Your task to perform on an android device: Go to sound settings Image 0: 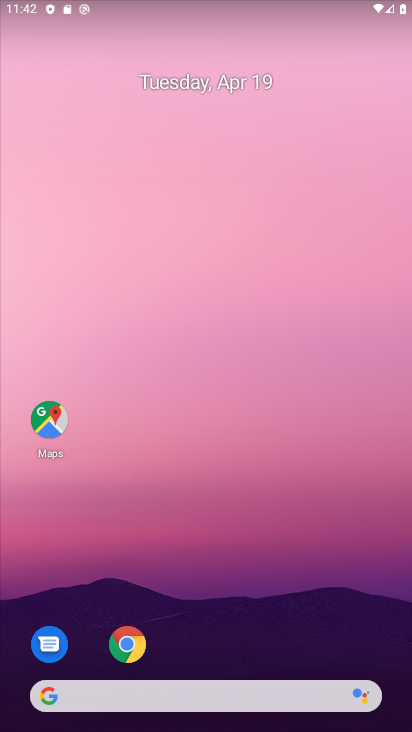
Step 0: drag from (278, 572) to (340, 49)
Your task to perform on an android device: Go to sound settings Image 1: 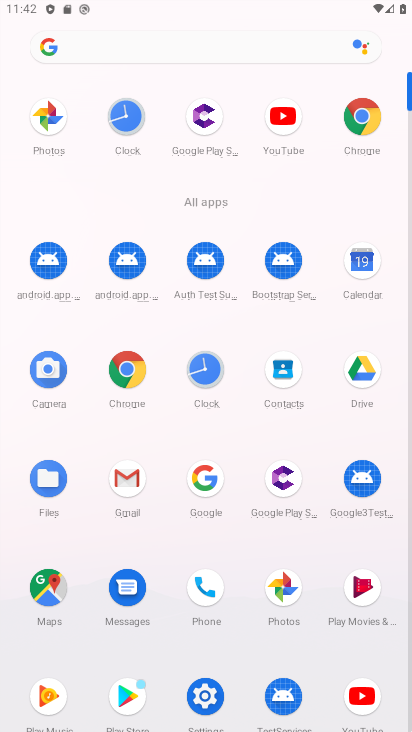
Step 1: click (201, 696)
Your task to perform on an android device: Go to sound settings Image 2: 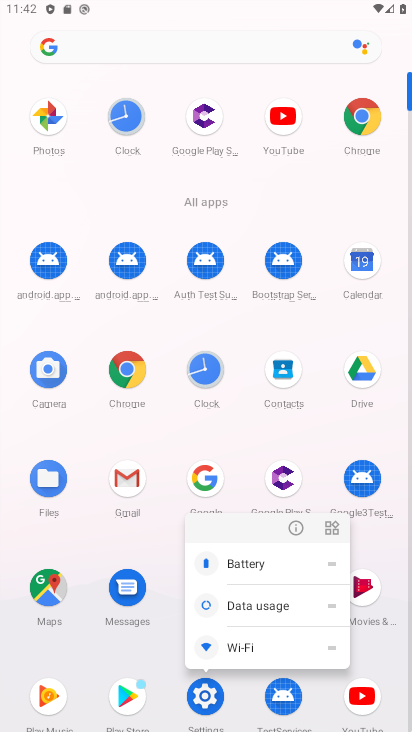
Step 2: click (201, 696)
Your task to perform on an android device: Go to sound settings Image 3: 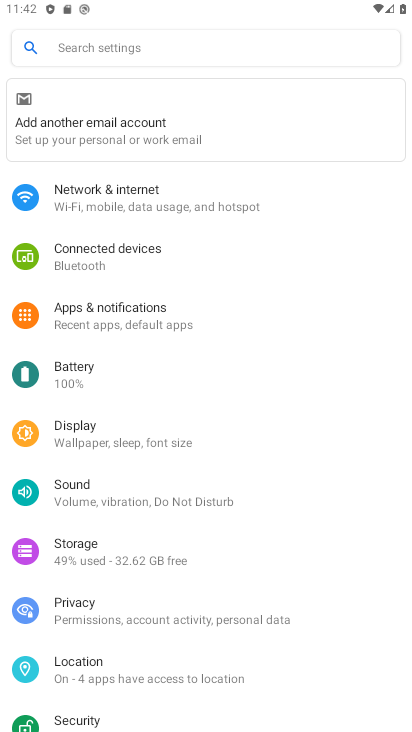
Step 3: click (168, 492)
Your task to perform on an android device: Go to sound settings Image 4: 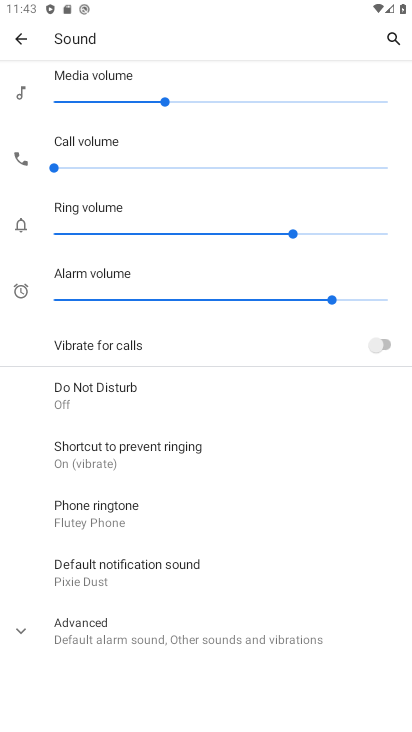
Step 4: task complete